Your task to perform on an android device: When is my next appointment? Image 0: 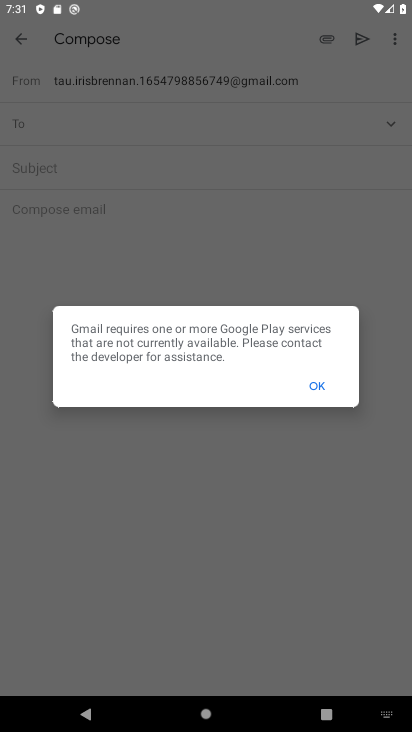
Step 0: press home button
Your task to perform on an android device: When is my next appointment? Image 1: 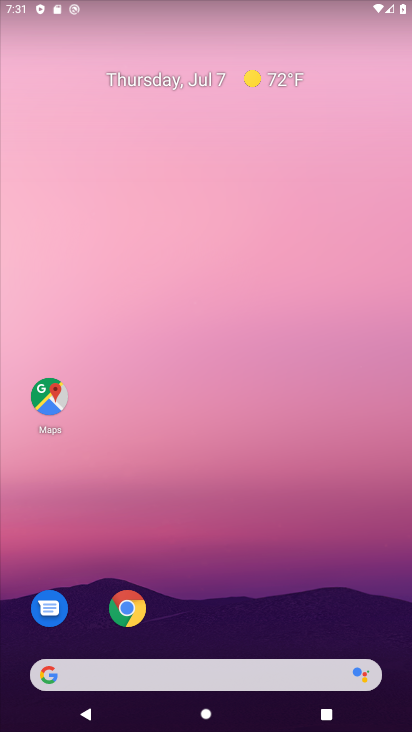
Step 1: drag from (389, 664) to (375, 278)
Your task to perform on an android device: When is my next appointment? Image 2: 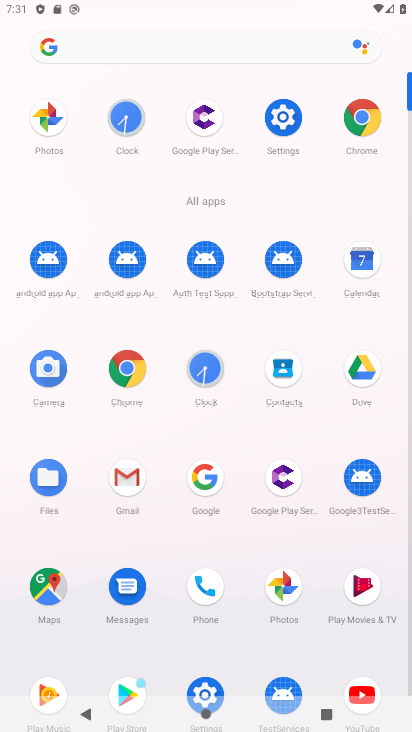
Step 2: click (290, 120)
Your task to perform on an android device: When is my next appointment? Image 3: 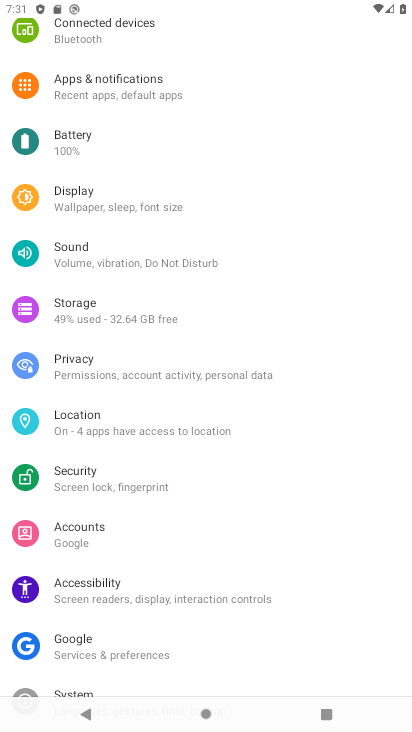
Step 3: click (71, 198)
Your task to perform on an android device: When is my next appointment? Image 4: 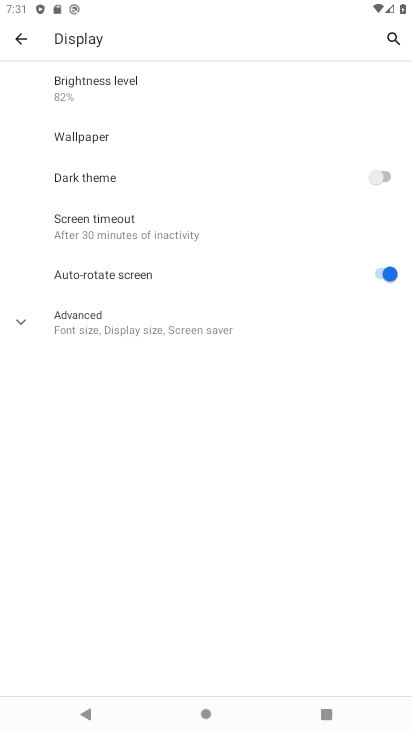
Step 4: click (29, 321)
Your task to perform on an android device: When is my next appointment? Image 5: 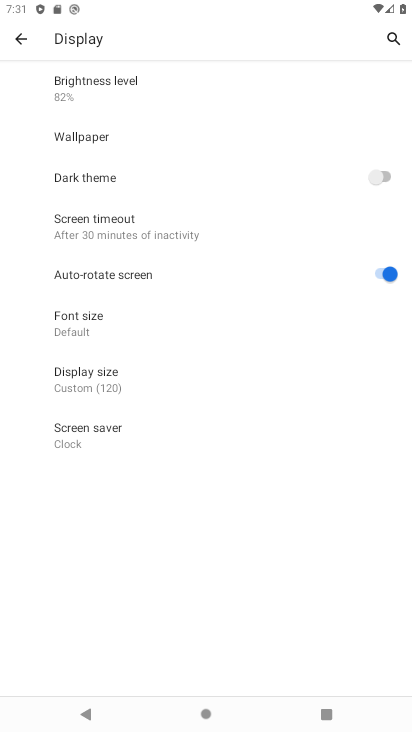
Step 5: click (76, 327)
Your task to perform on an android device: When is my next appointment? Image 6: 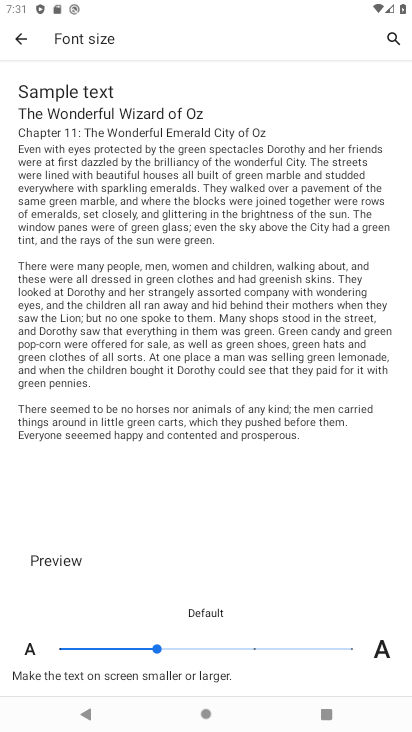
Step 6: click (353, 651)
Your task to perform on an android device: When is my next appointment? Image 7: 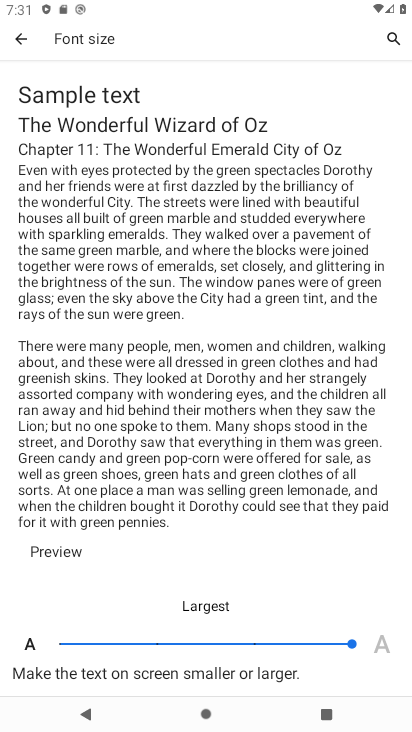
Step 7: click (25, 39)
Your task to perform on an android device: When is my next appointment? Image 8: 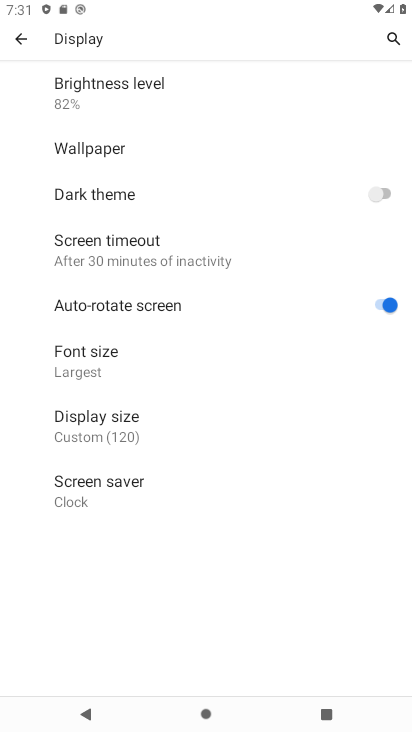
Step 8: click (15, 36)
Your task to perform on an android device: When is my next appointment? Image 9: 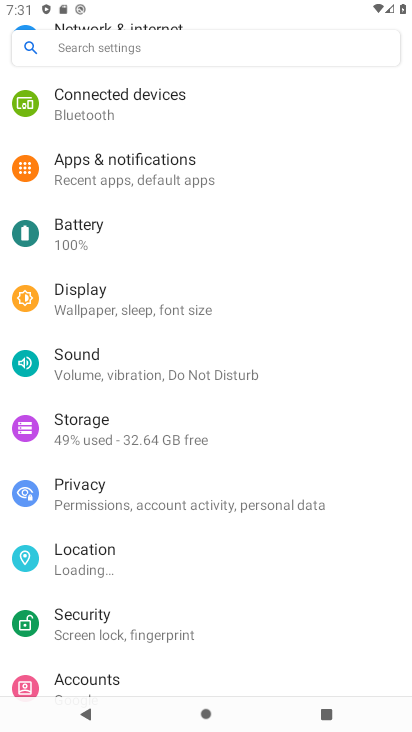
Step 9: press back button
Your task to perform on an android device: When is my next appointment? Image 10: 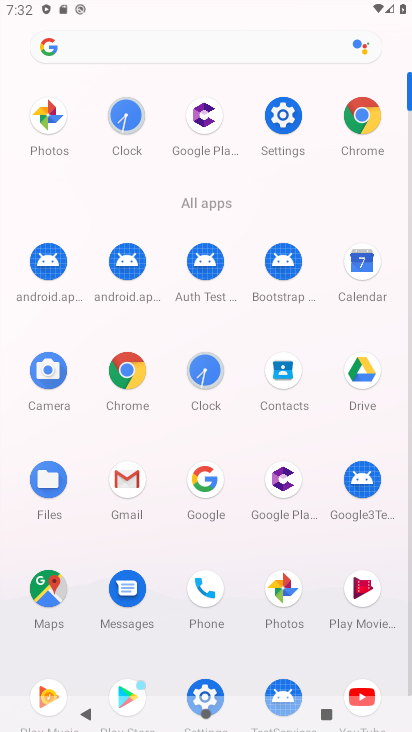
Step 10: click (357, 268)
Your task to perform on an android device: When is my next appointment? Image 11: 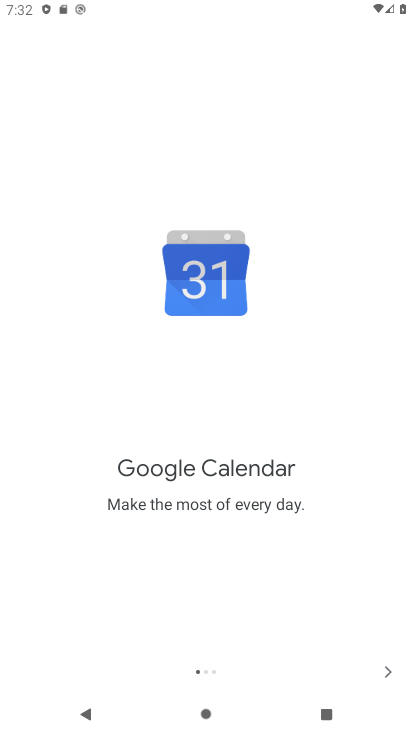
Step 11: click (384, 667)
Your task to perform on an android device: When is my next appointment? Image 12: 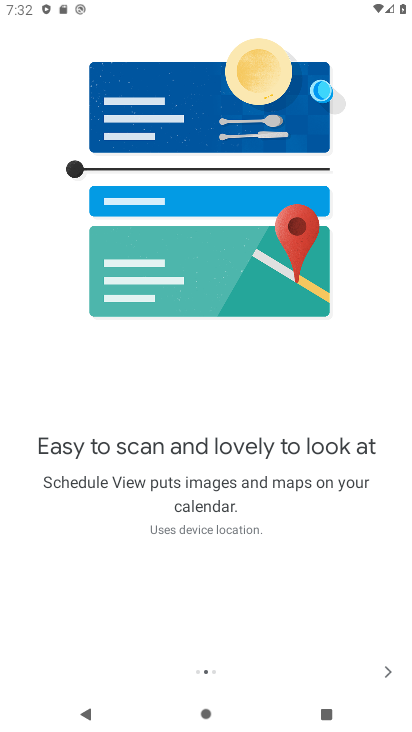
Step 12: click (391, 673)
Your task to perform on an android device: When is my next appointment? Image 13: 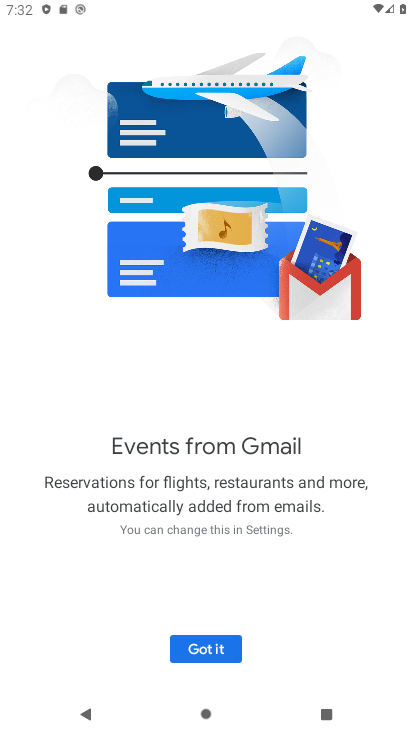
Step 13: click (218, 646)
Your task to perform on an android device: When is my next appointment? Image 14: 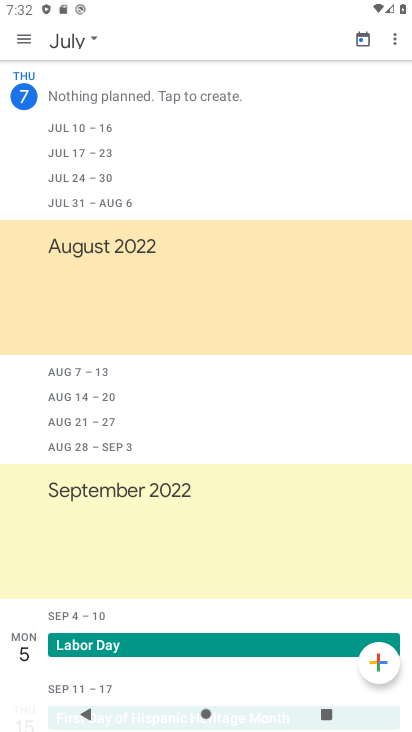
Step 14: task complete